Your task to perform on an android device: Open sound settings Image 0: 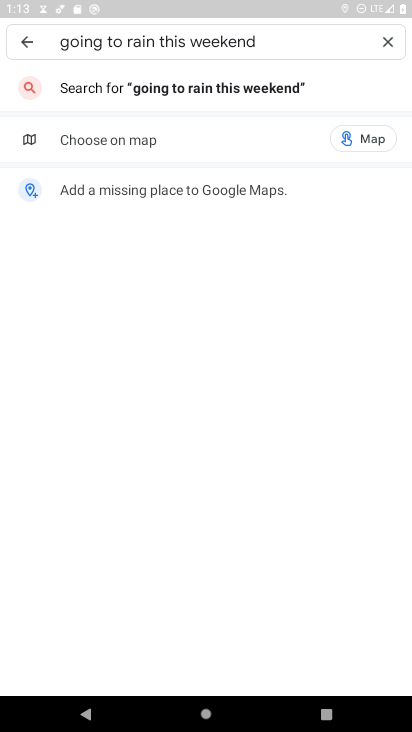
Step 0: press home button
Your task to perform on an android device: Open sound settings Image 1: 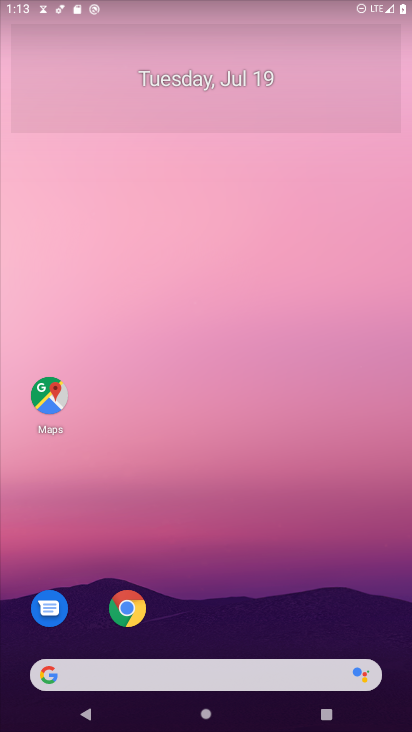
Step 1: drag from (284, 587) to (340, 24)
Your task to perform on an android device: Open sound settings Image 2: 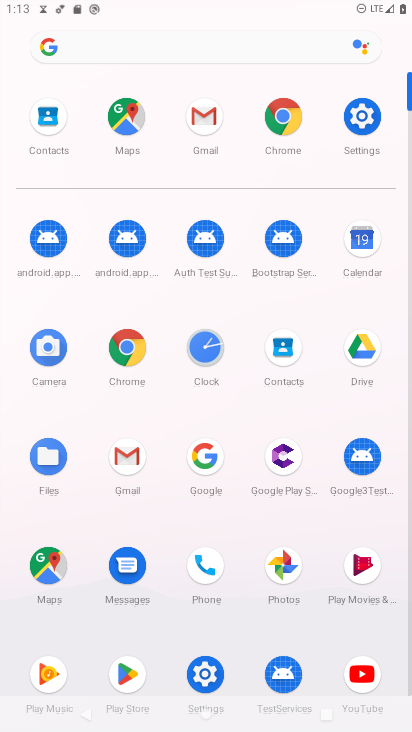
Step 2: click (362, 118)
Your task to perform on an android device: Open sound settings Image 3: 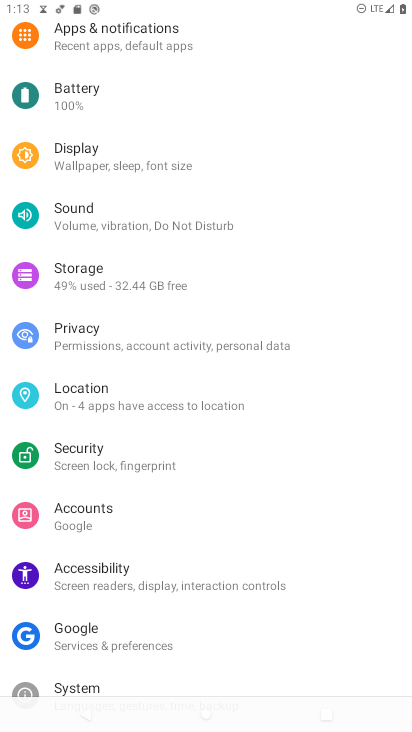
Step 3: click (122, 225)
Your task to perform on an android device: Open sound settings Image 4: 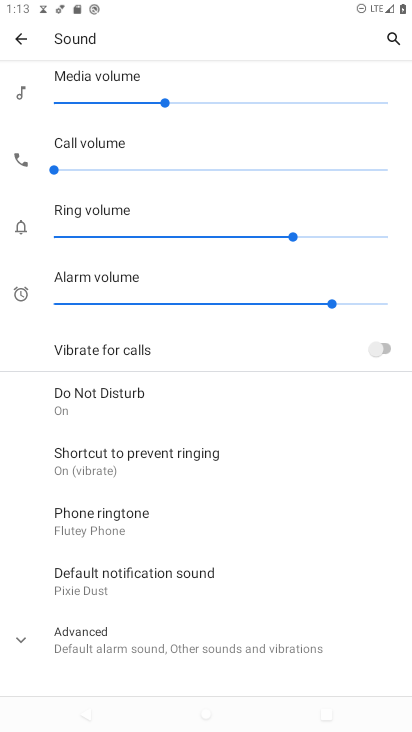
Step 4: task complete